Your task to perform on an android device: open app "Truecaller" (install if not already installed) Image 0: 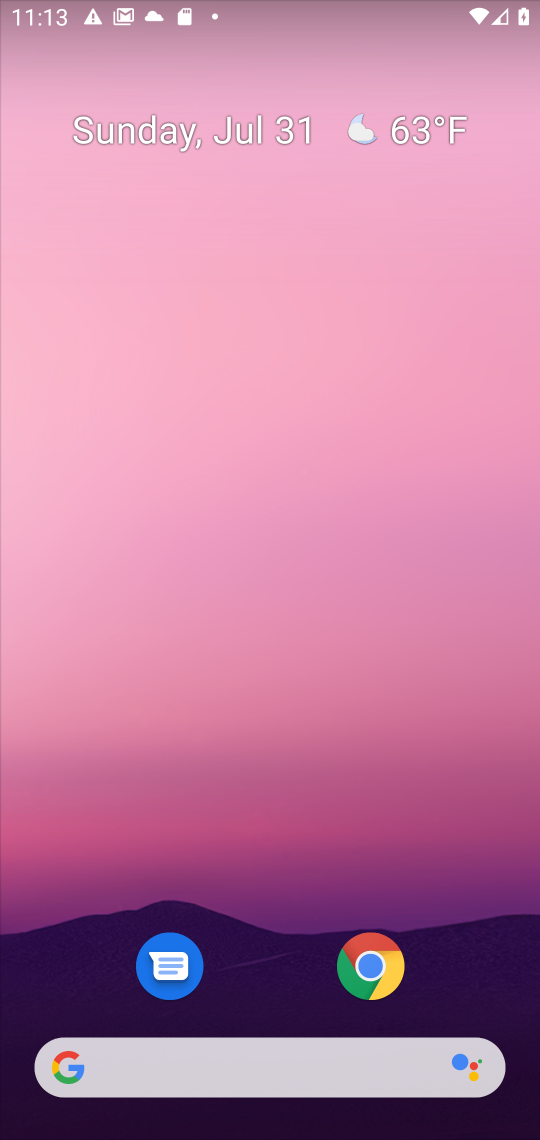
Step 0: drag from (239, 112) to (153, 21)
Your task to perform on an android device: open app "Truecaller" (install if not already installed) Image 1: 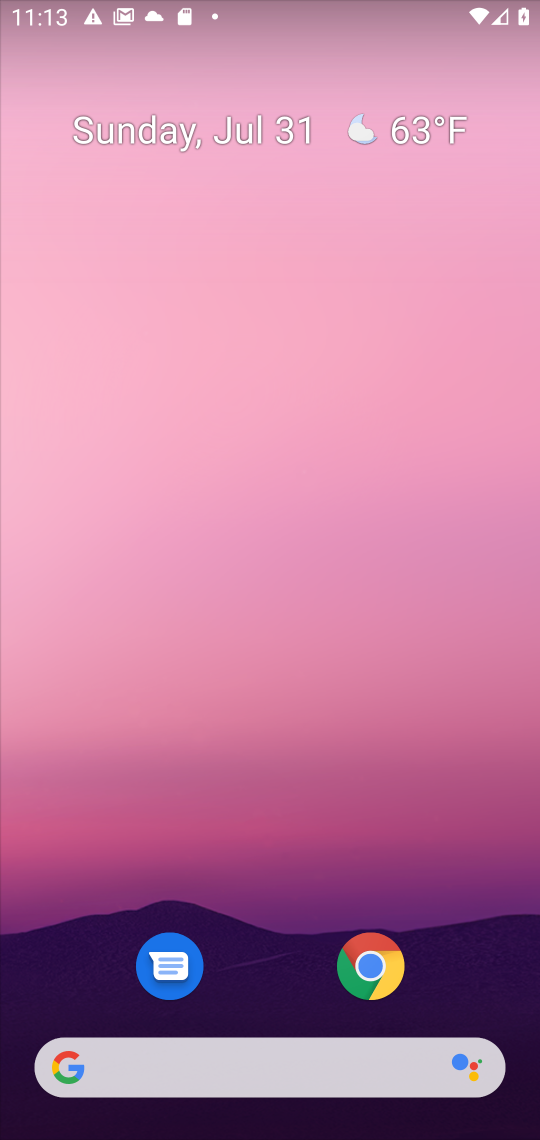
Step 1: drag from (256, 875) to (172, 6)
Your task to perform on an android device: open app "Truecaller" (install if not already installed) Image 2: 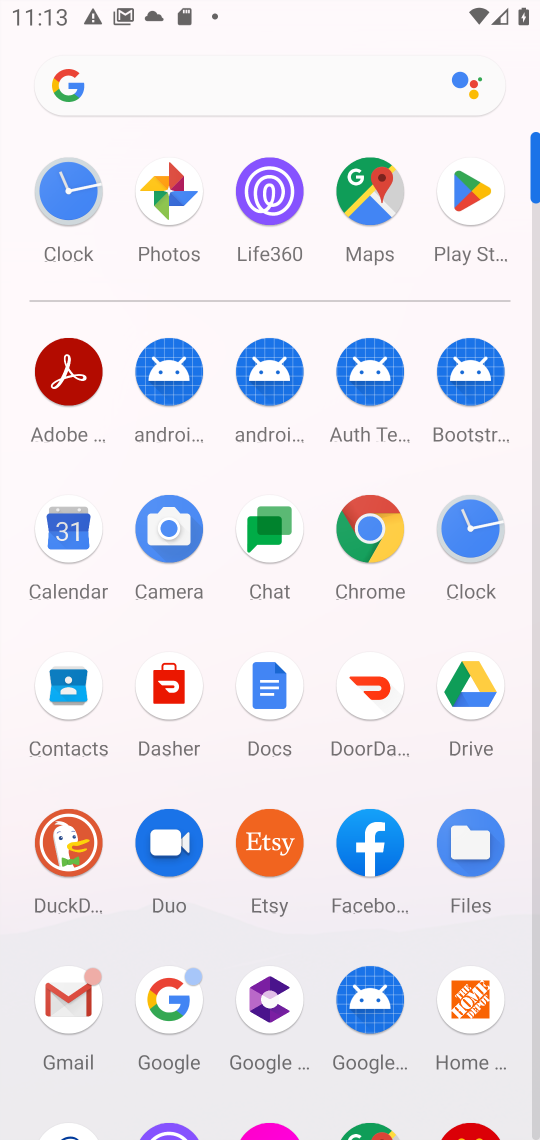
Step 2: click (483, 221)
Your task to perform on an android device: open app "Truecaller" (install if not already installed) Image 3: 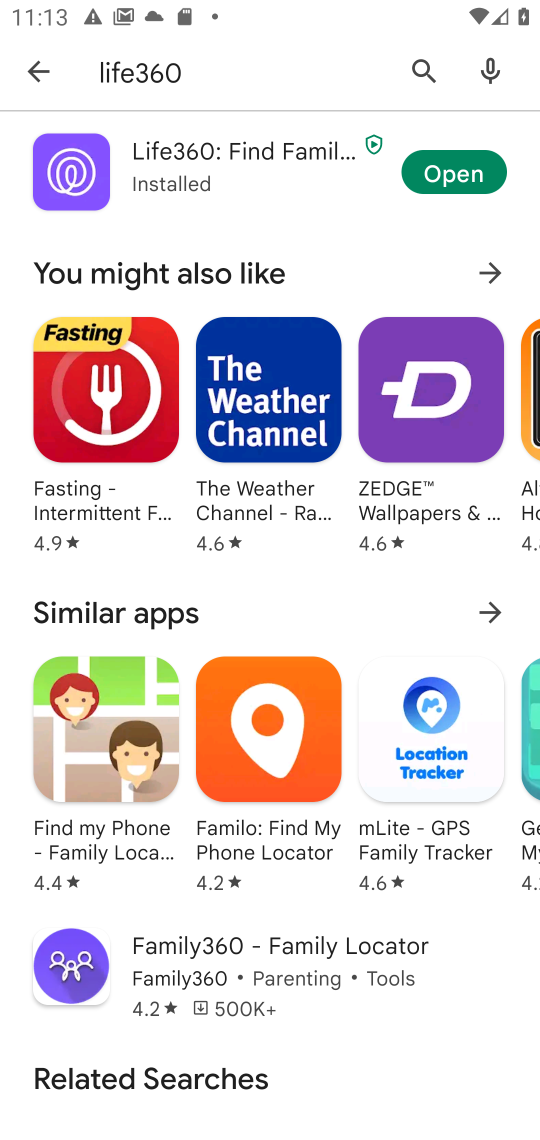
Step 3: click (227, 71)
Your task to perform on an android device: open app "Truecaller" (install if not already installed) Image 4: 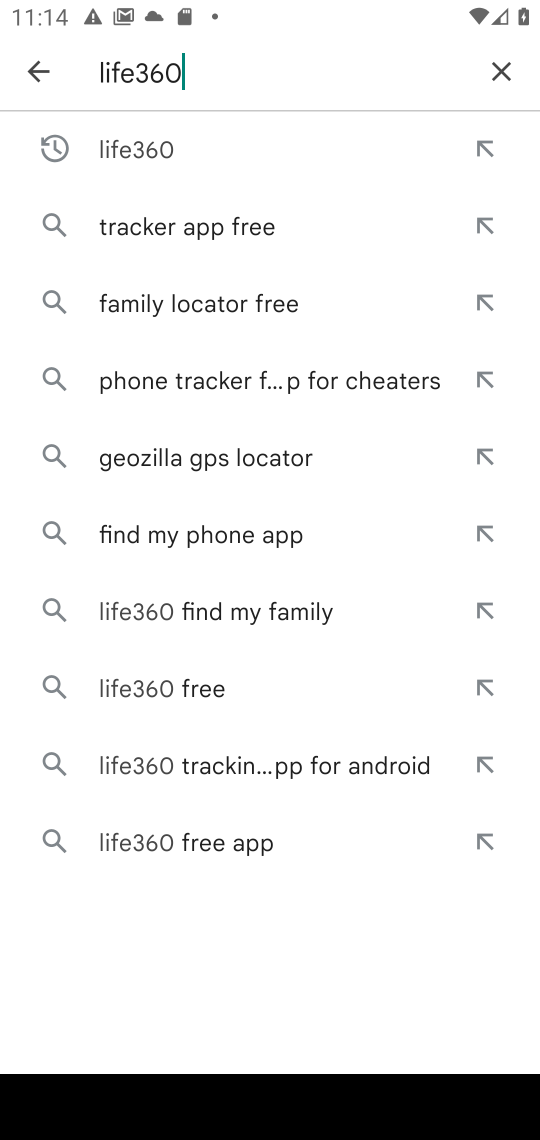
Step 4: click (501, 69)
Your task to perform on an android device: open app "Truecaller" (install if not already installed) Image 5: 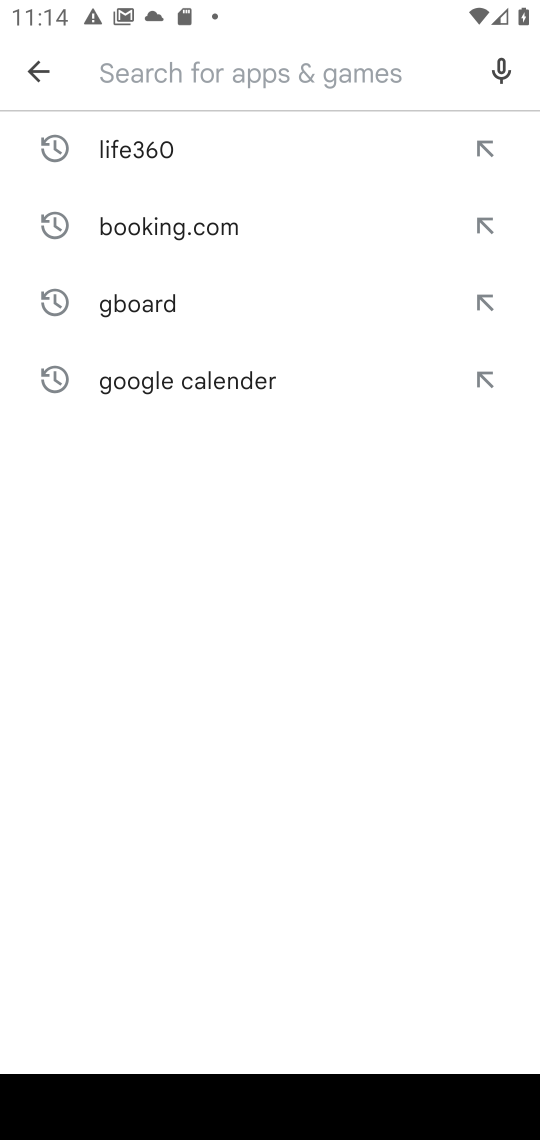
Step 5: type "truecaller"
Your task to perform on an android device: open app "Truecaller" (install if not already installed) Image 6: 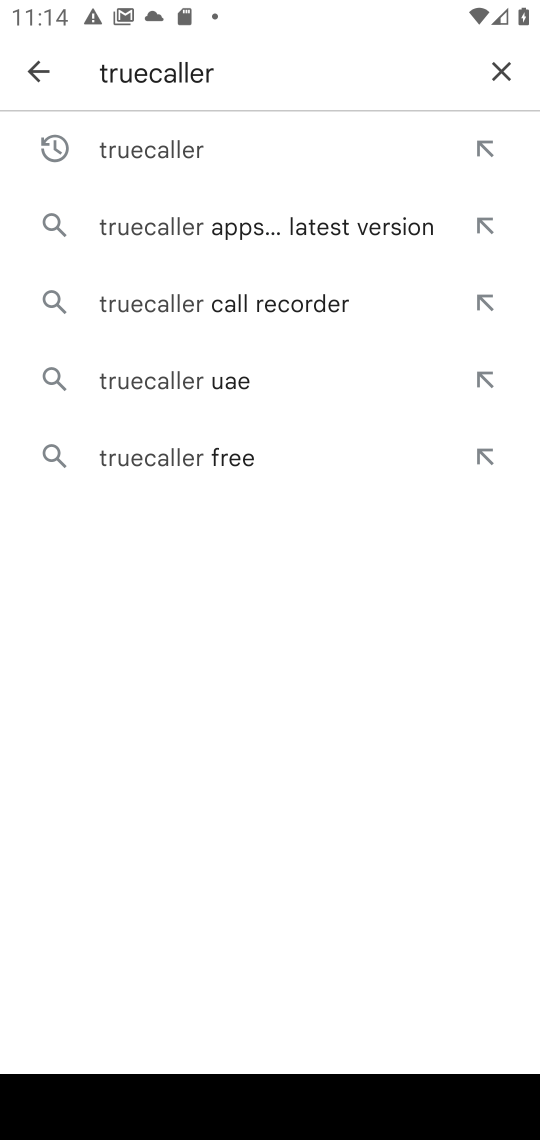
Step 6: click (164, 160)
Your task to perform on an android device: open app "Truecaller" (install if not already installed) Image 7: 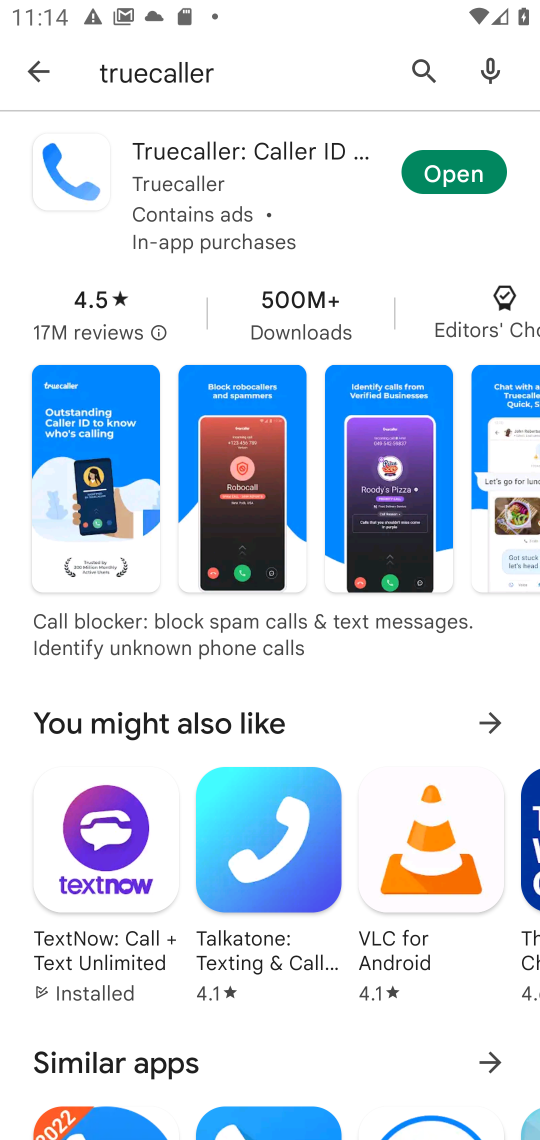
Step 7: click (460, 168)
Your task to perform on an android device: open app "Truecaller" (install if not already installed) Image 8: 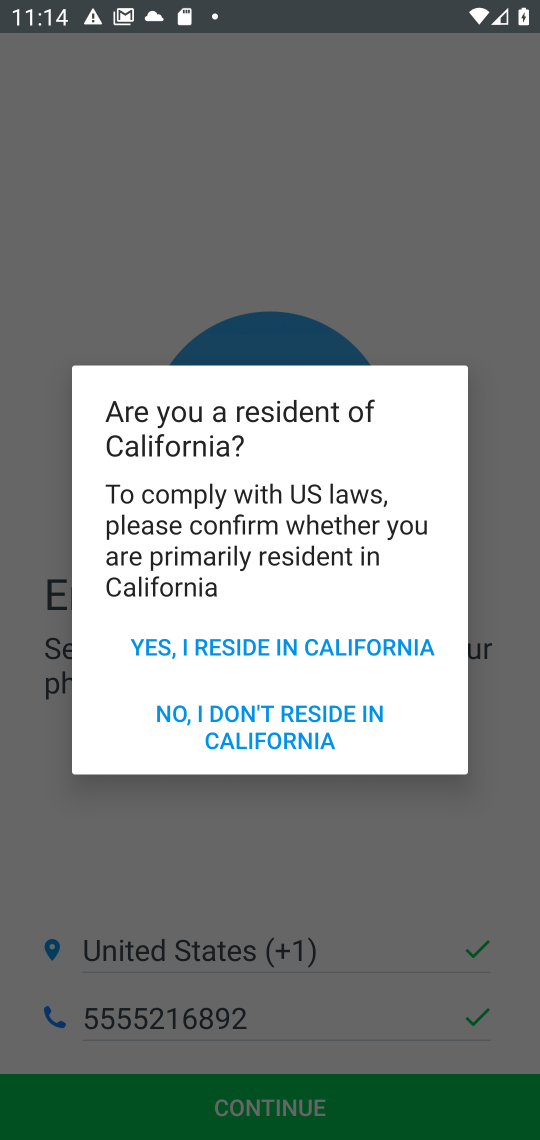
Step 8: click (323, 638)
Your task to perform on an android device: open app "Truecaller" (install if not already installed) Image 9: 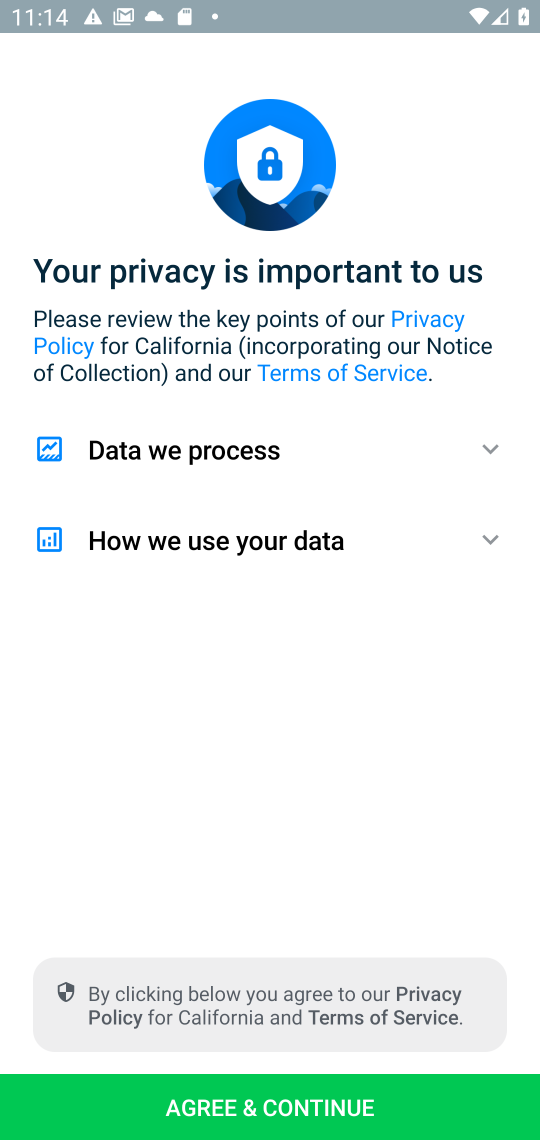
Step 9: click (258, 1110)
Your task to perform on an android device: open app "Truecaller" (install if not already installed) Image 10: 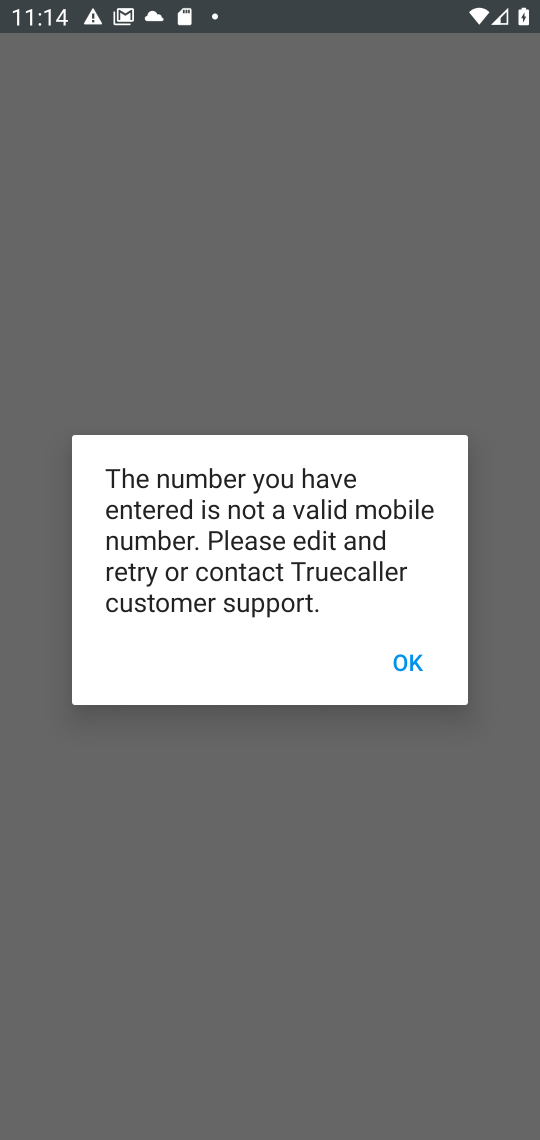
Step 10: click (408, 670)
Your task to perform on an android device: open app "Truecaller" (install if not already installed) Image 11: 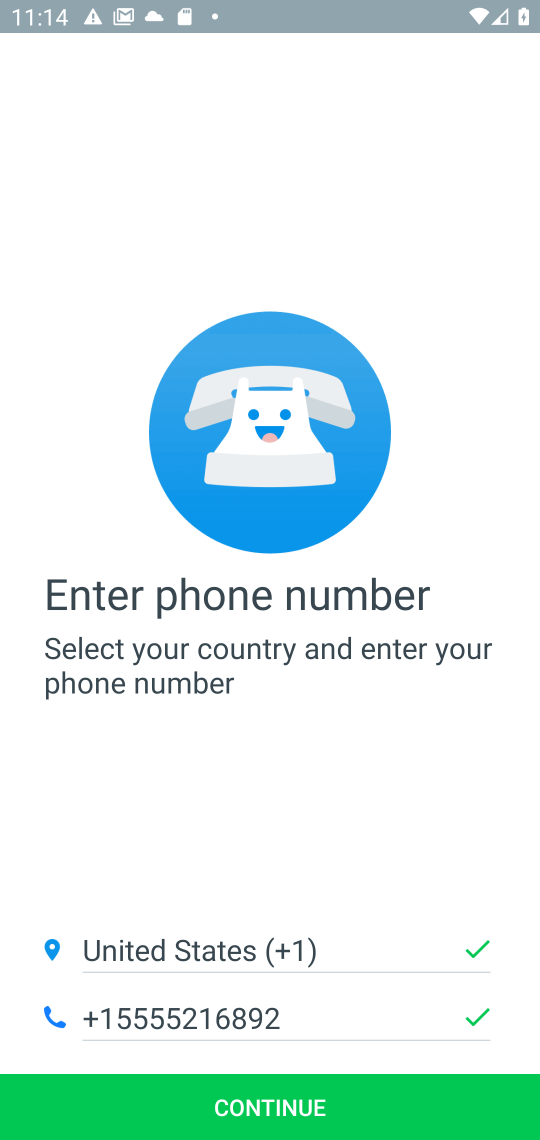
Step 11: click (263, 1117)
Your task to perform on an android device: open app "Truecaller" (install if not already installed) Image 12: 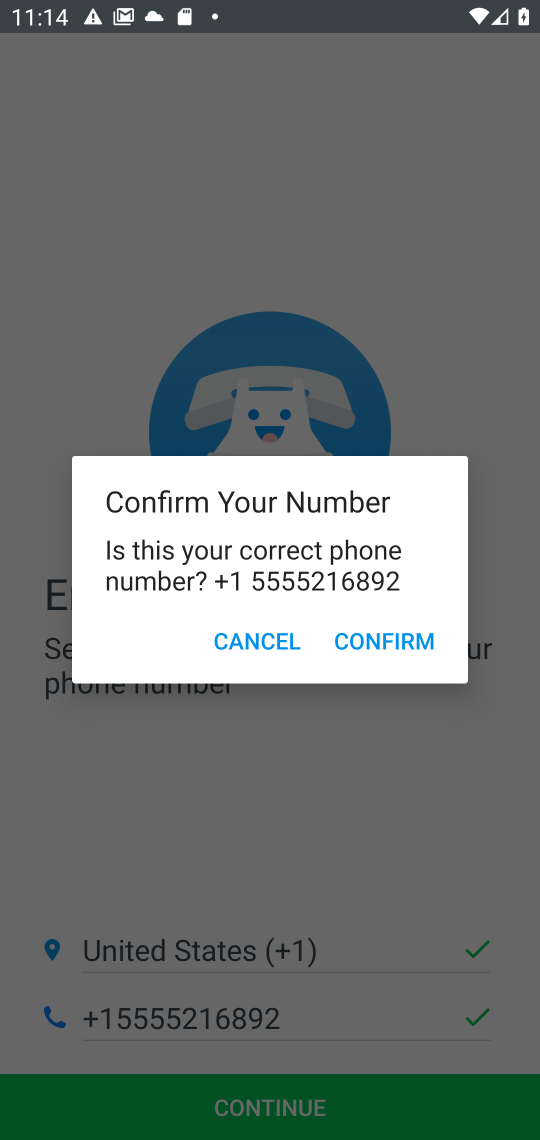
Step 12: click (408, 631)
Your task to perform on an android device: open app "Truecaller" (install if not already installed) Image 13: 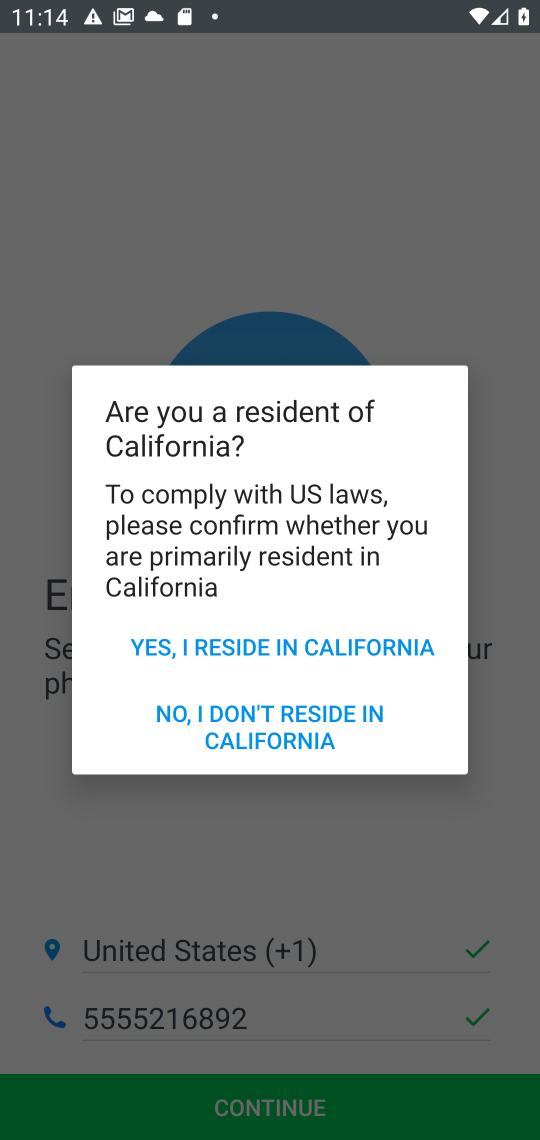
Step 13: task complete